Your task to perform on an android device: Go to Google maps Image 0: 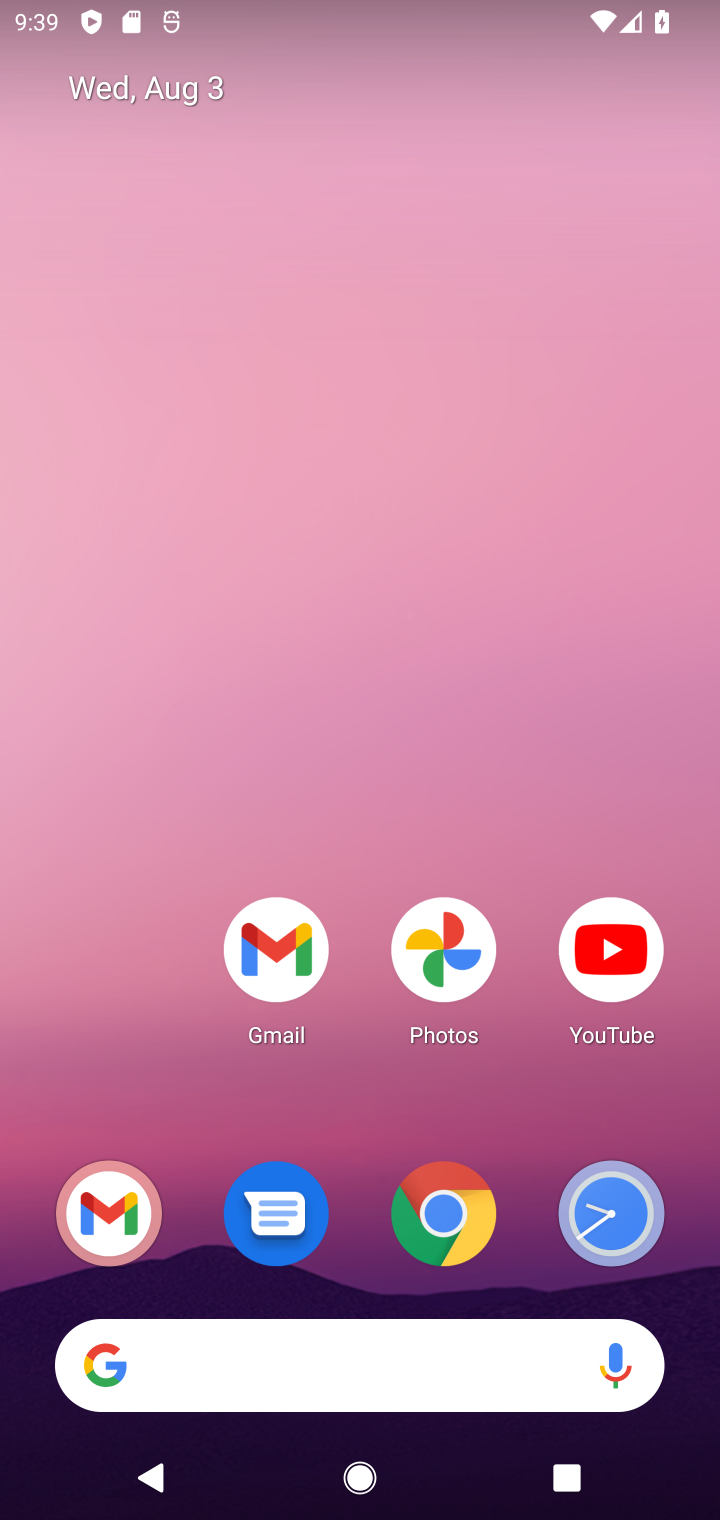
Step 0: drag from (581, 1087) to (453, 514)
Your task to perform on an android device: Go to Google maps Image 1: 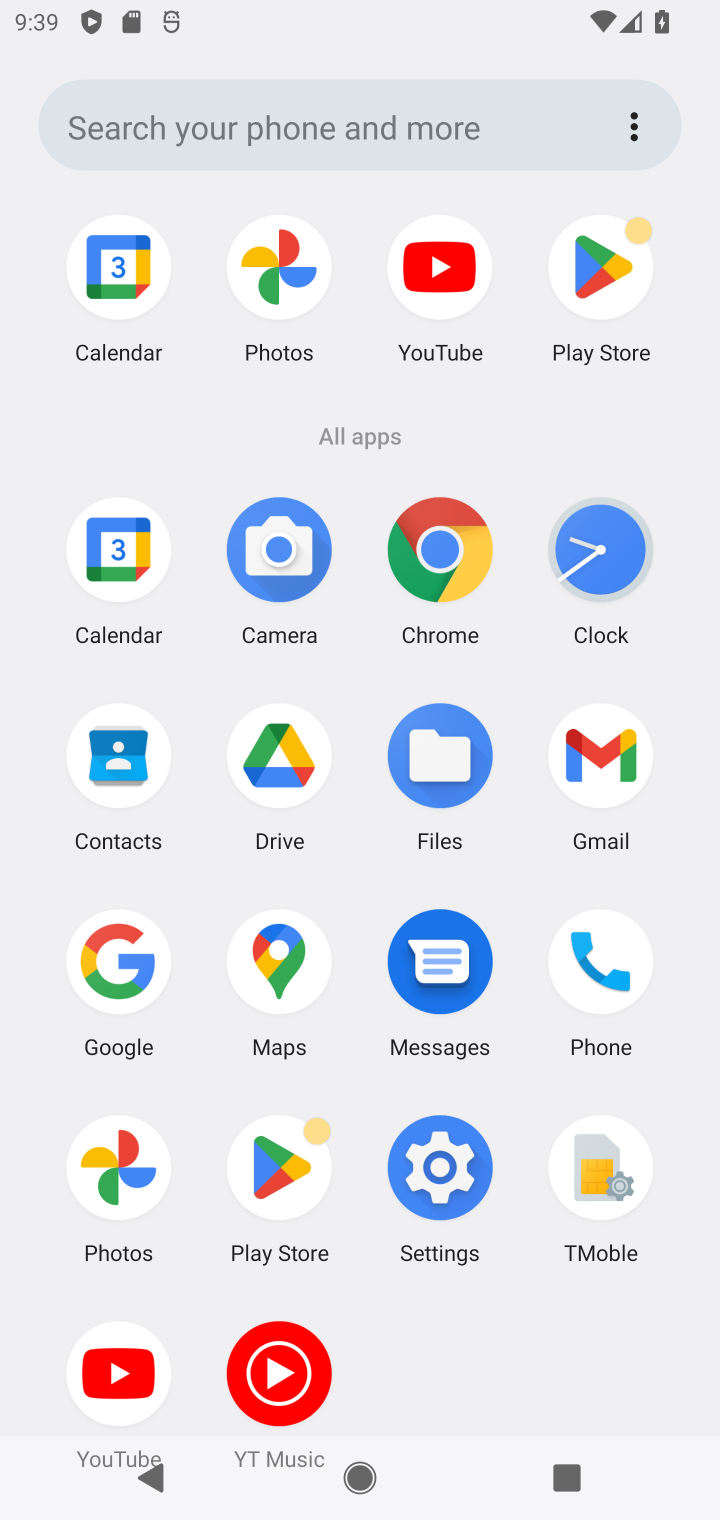
Step 1: click (294, 981)
Your task to perform on an android device: Go to Google maps Image 2: 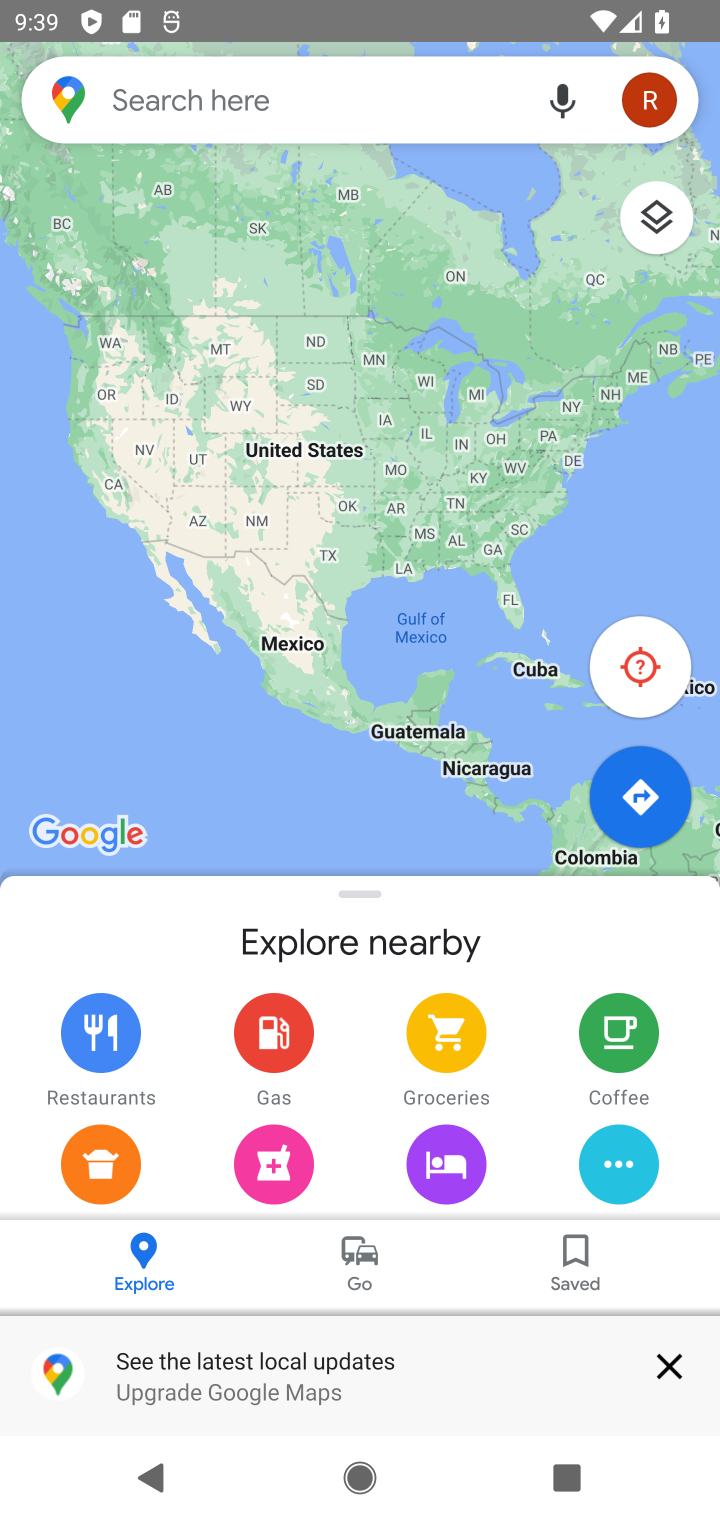
Step 2: task complete